Your task to perform on an android device: Go to CNN.com Image 0: 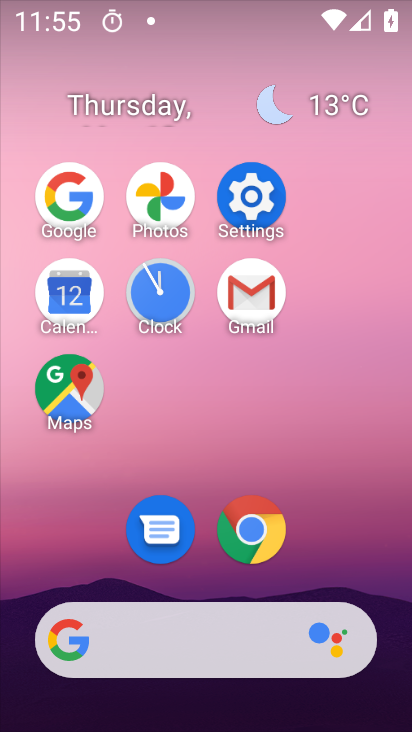
Step 0: click (265, 537)
Your task to perform on an android device: Go to CNN.com Image 1: 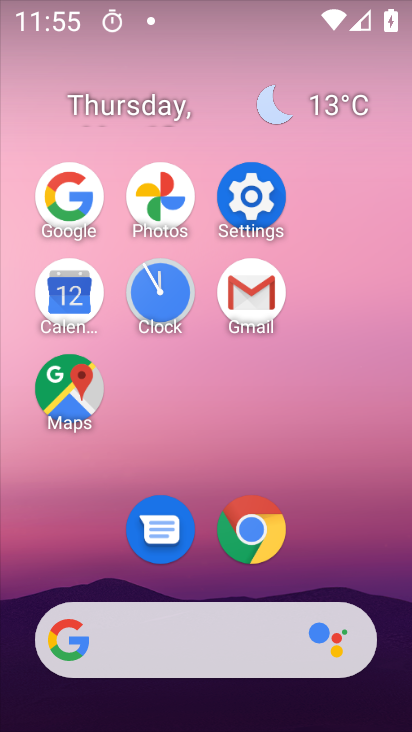
Step 1: click (238, 549)
Your task to perform on an android device: Go to CNN.com Image 2: 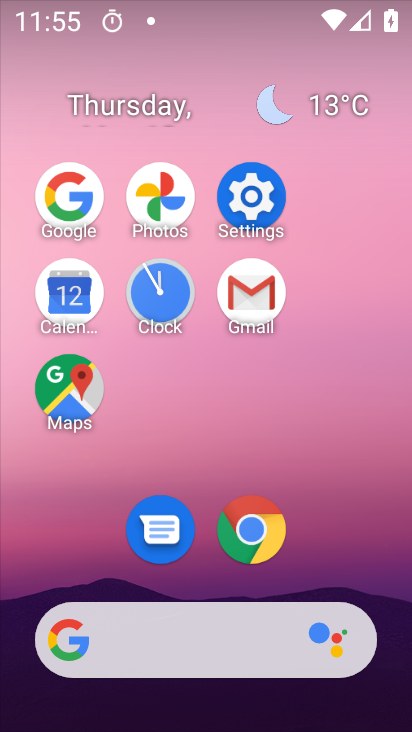
Step 2: click (262, 542)
Your task to perform on an android device: Go to CNN.com Image 3: 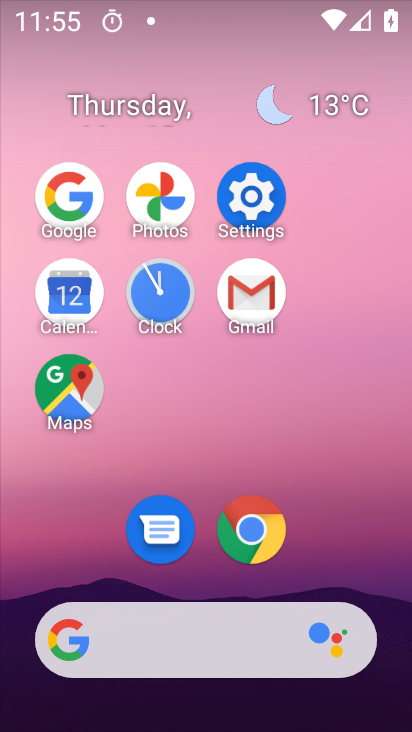
Step 3: click (271, 523)
Your task to perform on an android device: Go to CNN.com Image 4: 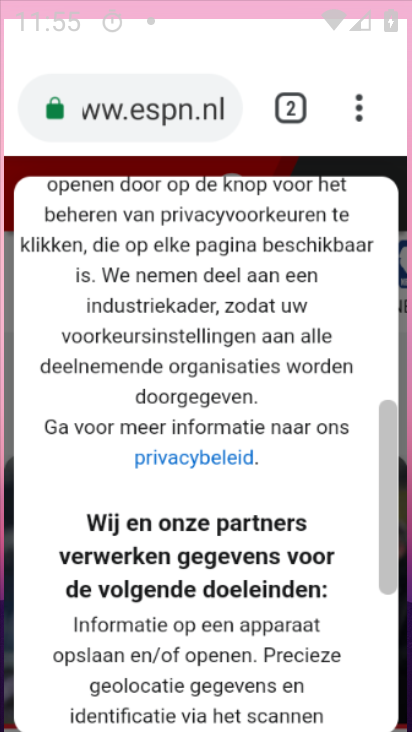
Step 4: click (271, 523)
Your task to perform on an android device: Go to CNN.com Image 5: 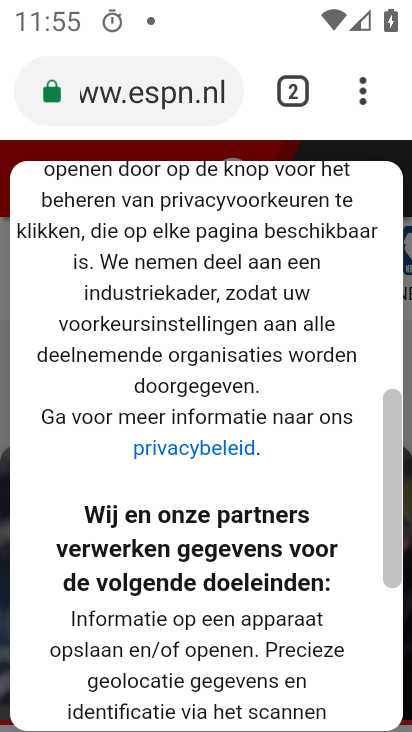
Step 5: click (288, 99)
Your task to perform on an android device: Go to CNN.com Image 6: 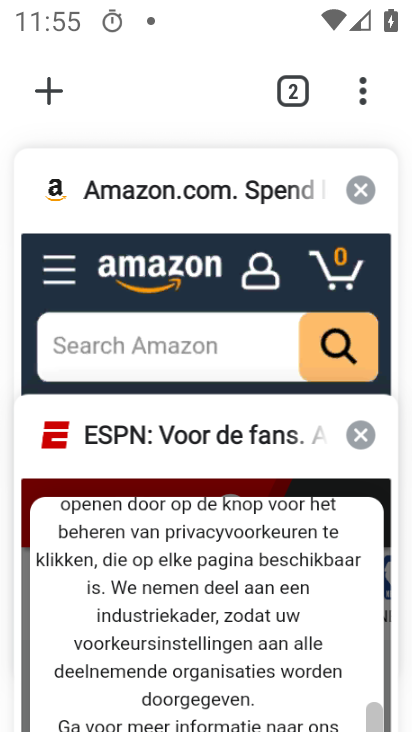
Step 6: click (57, 79)
Your task to perform on an android device: Go to CNN.com Image 7: 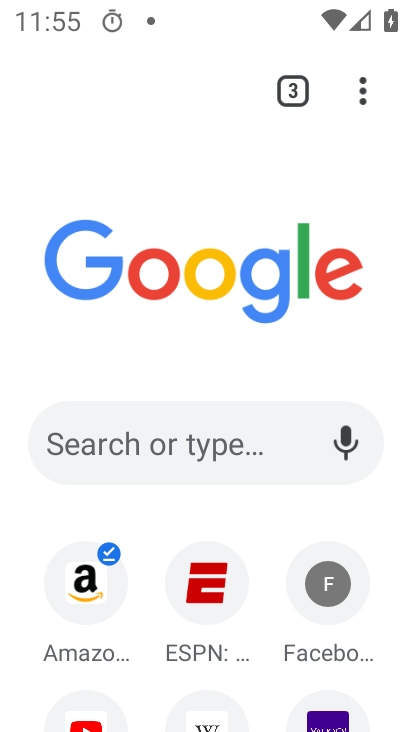
Step 7: click (239, 435)
Your task to perform on an android device: Go to CNN.com Image 8: 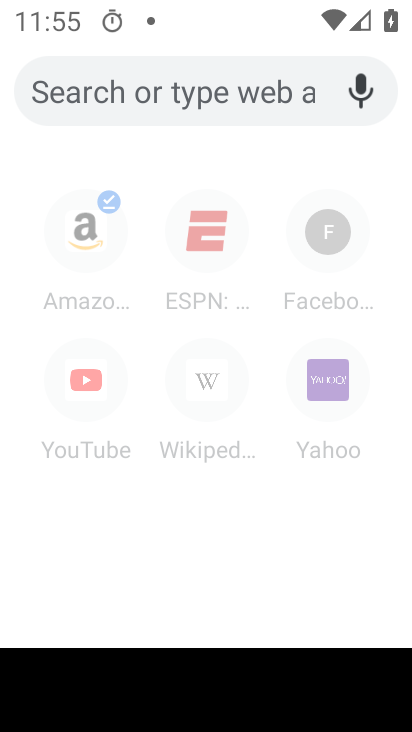
Step 8: type "cnn"
Your task to perform on an android device: Go to CNN.com Image 9: 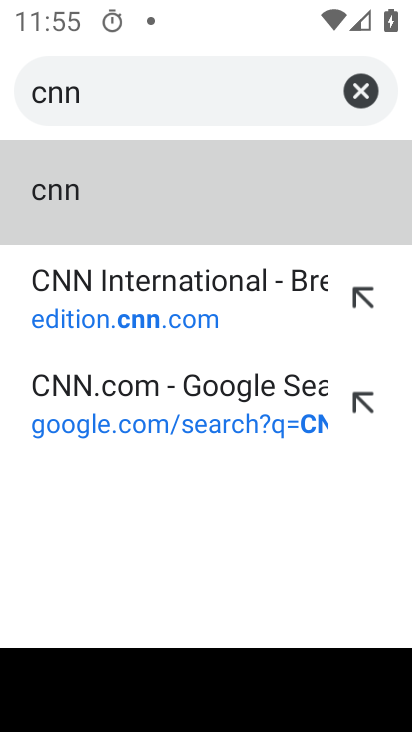
Step 9: click (130, 325)
Your task to perform on an android device: Go to CNN.com Image 10: 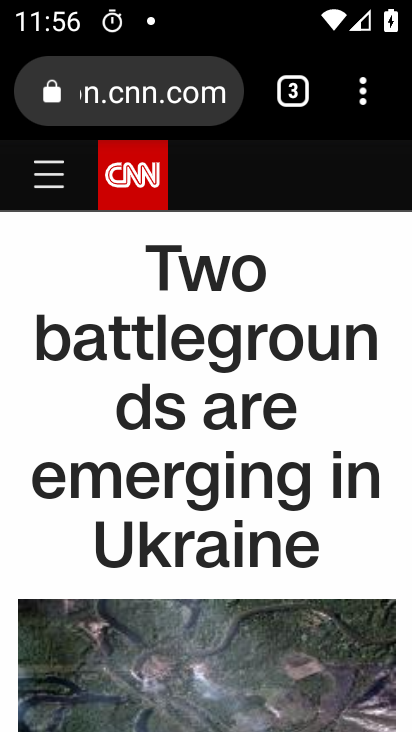
Step 10: task complete